Your task to perform on an android device: Open display settings Image 0: 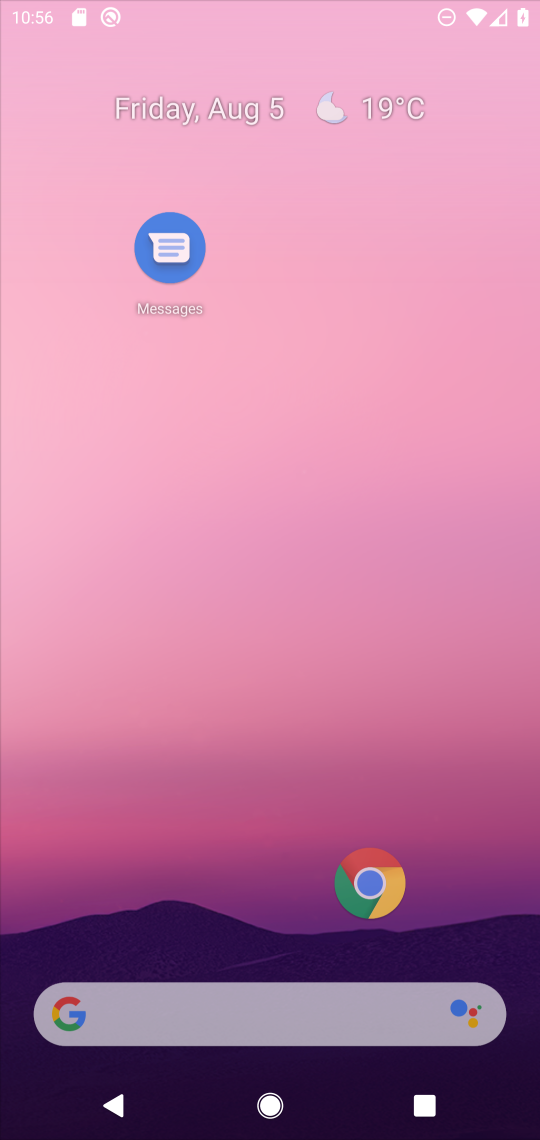
Step 0: press home button
Your task to perform on an android device: Open display settings Image 1: 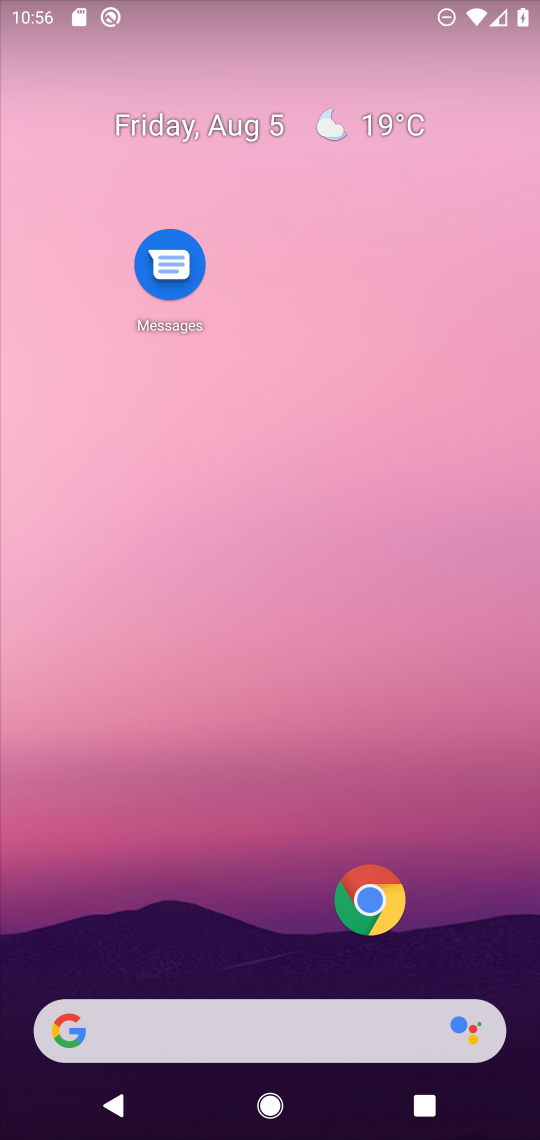
Step 1: drag from (380, 997) to (366, 122)
Your task to perform on an android device: Open display settings Image 2: 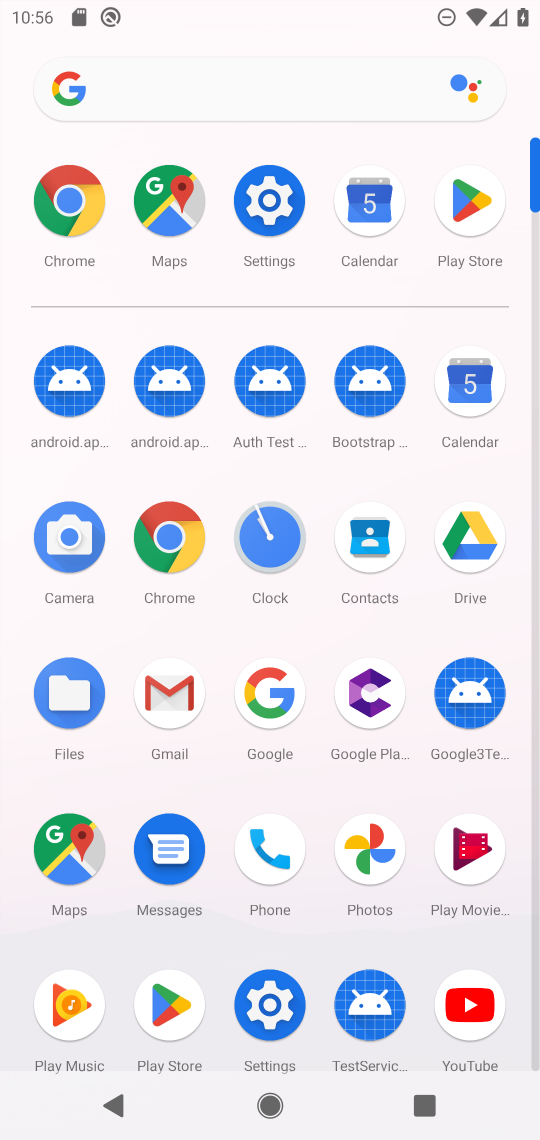
Step 2: click (258, 205)
Your task to perform on an android device: Open display settings Image 3: 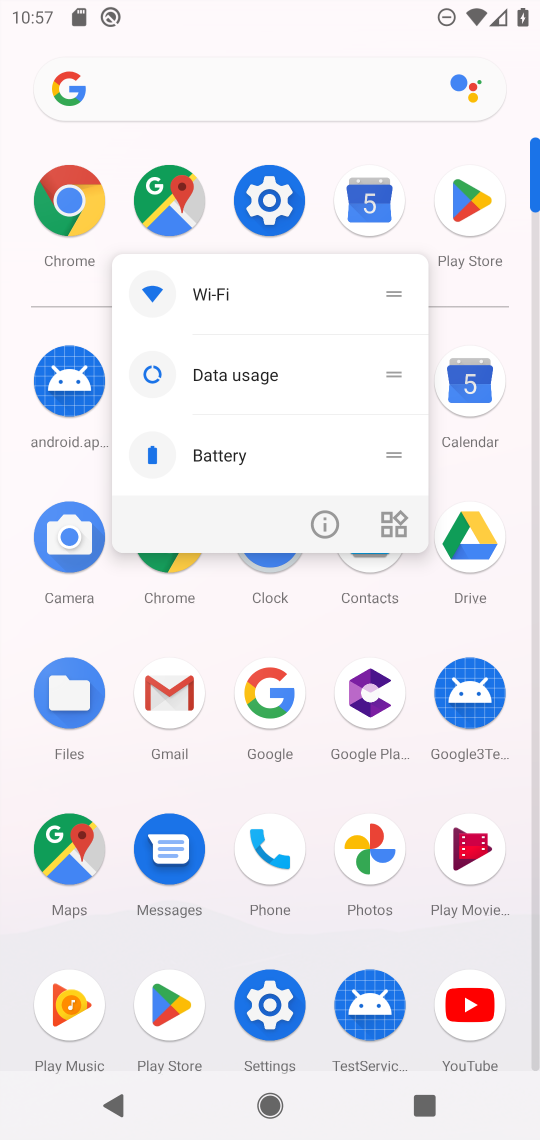
Step 3: click (272, 1019)
Your task to perform on an android device: Open display settings Image 4: 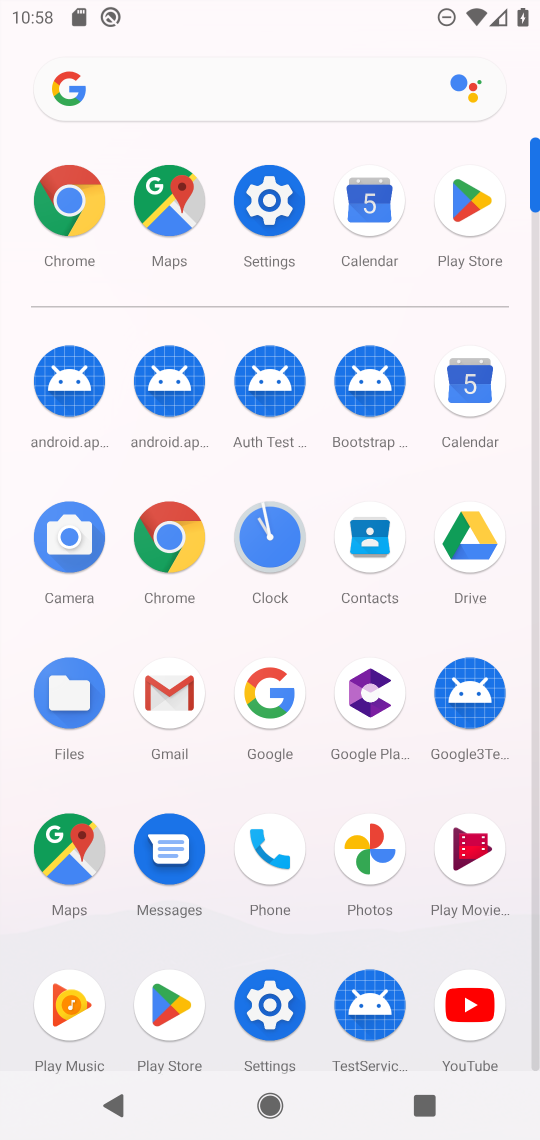
Step 4: click (261, 1010)
Your task to perform on an android device: Open display settings Image 5: 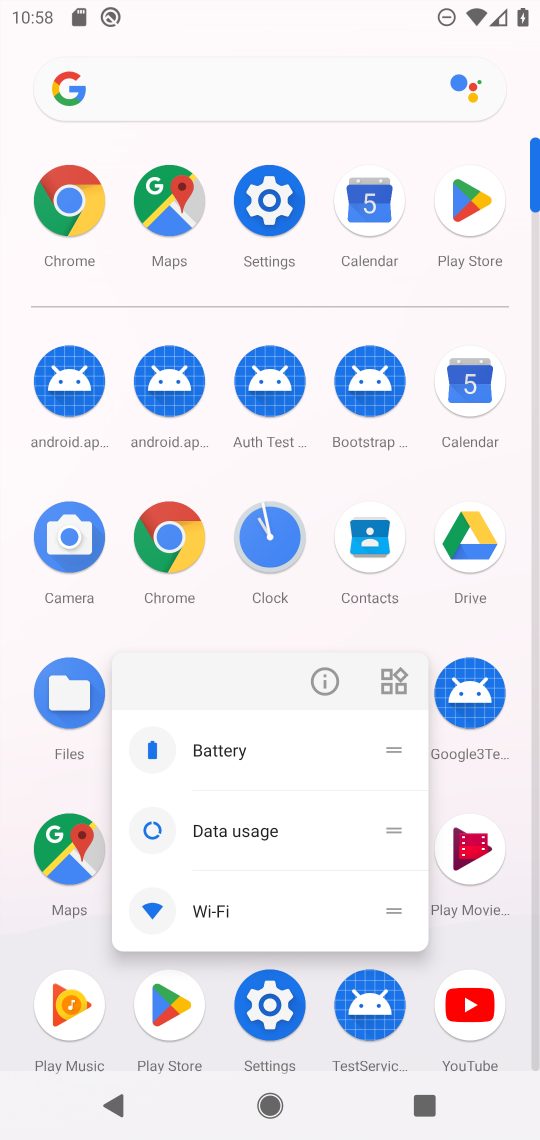
Step 5: click (261, 1010)
Your task to perform on an android device: Open display settings Image 6: 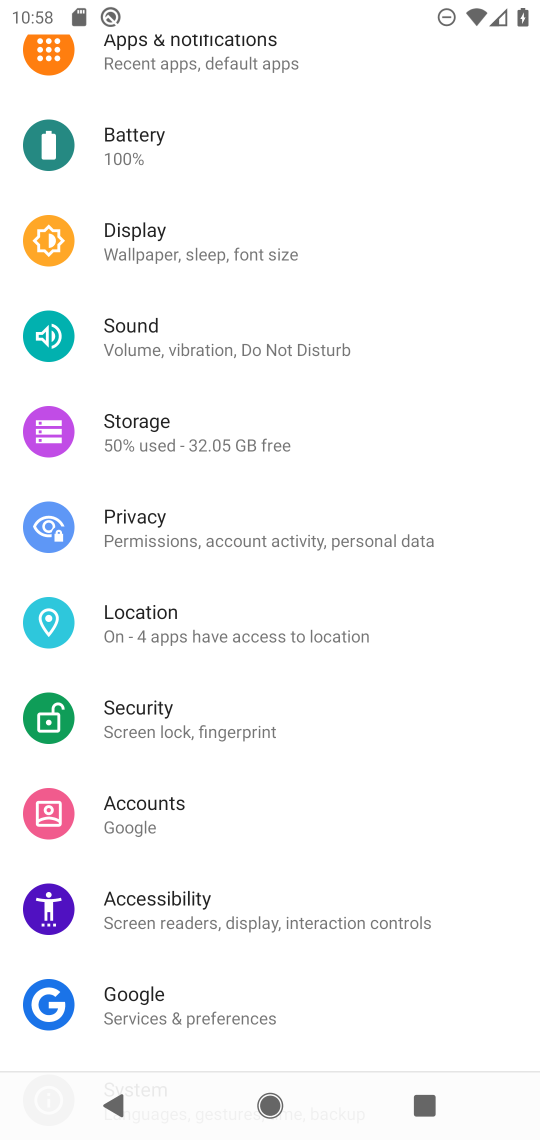
Step 6: click (96, 232)
Your task to perform on an android device: Open display settings Image 7: 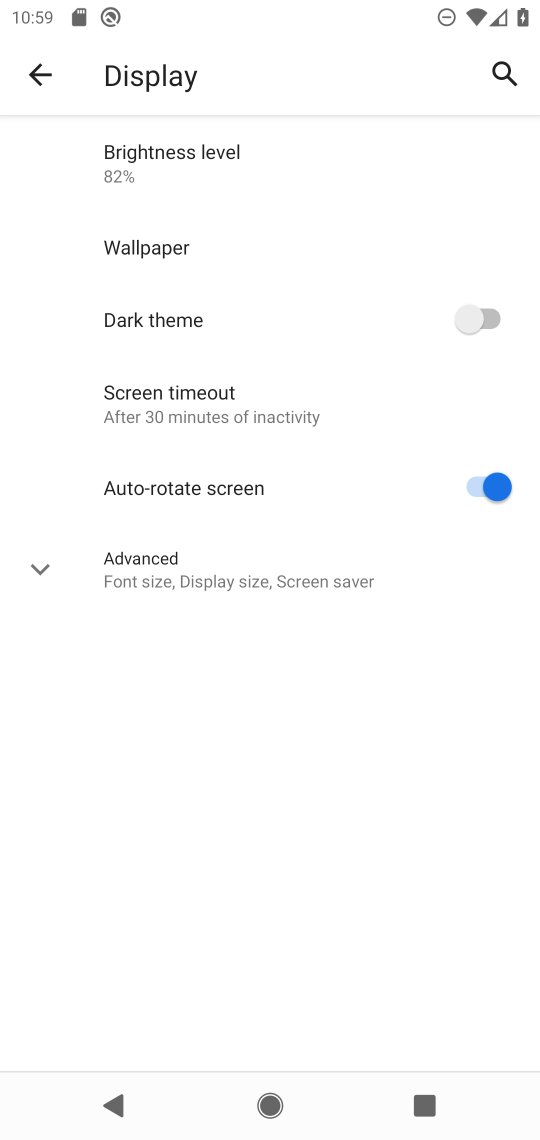
Step 7: task complete